Your task to perform on an android device: What's the weather going to be this weekend? Image 0: 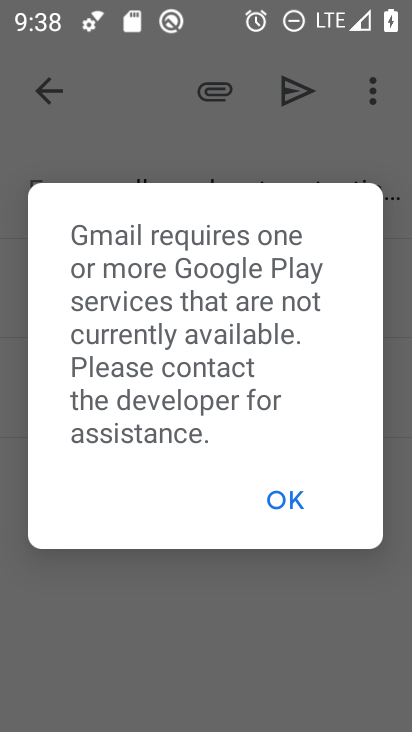
Step 0: click (294, 490)
Your task to perform on an android device: What's the weather going to be this weekend? Image 1: 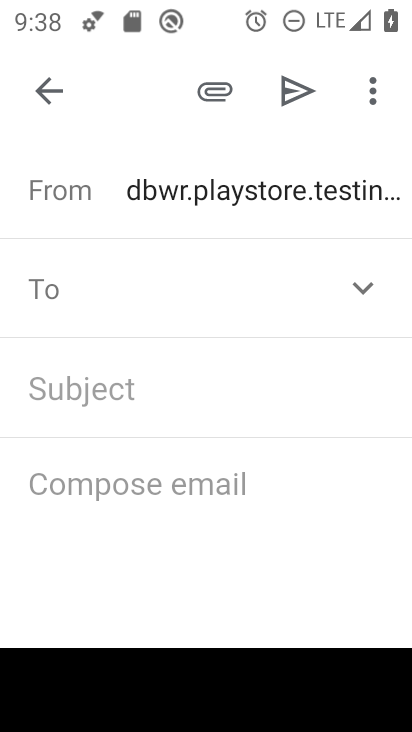
Step 1: press home button
Your task to perform on an android device: What's the weather going to be this weekend? Image 2: 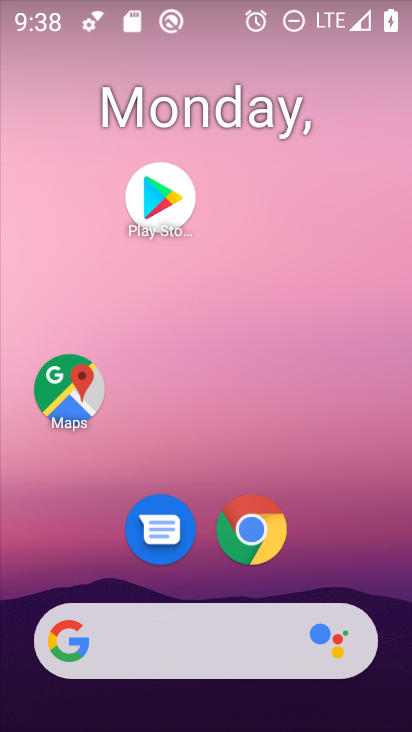
Step 2: click (179, 621)
Your task to perform on an android device: What's the weather going to be this weekend? Image 3: 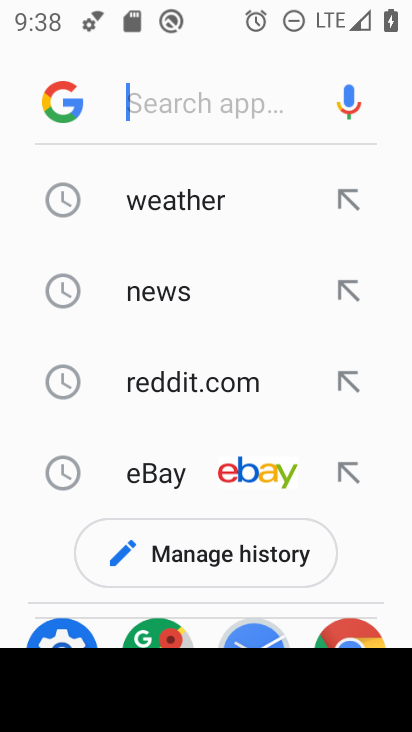
Step 3: click (183, 193)
Your task to perform on an android device: What's the weather going to be this weekend? Image 4: 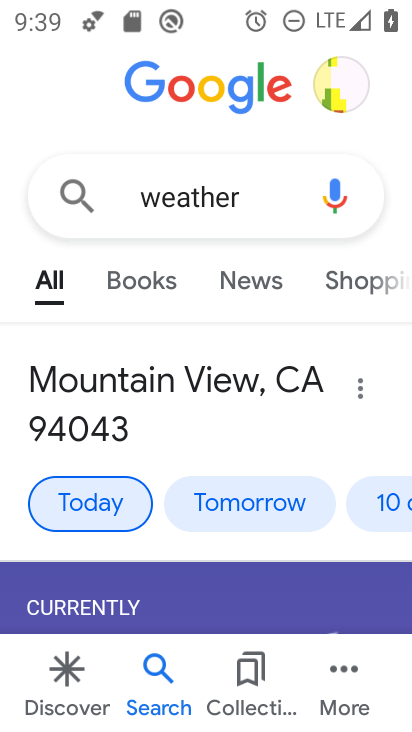
Step 4: click (370, 503)
Your task to perform on an android device: What's the weather going to be this weekend? Image 5: 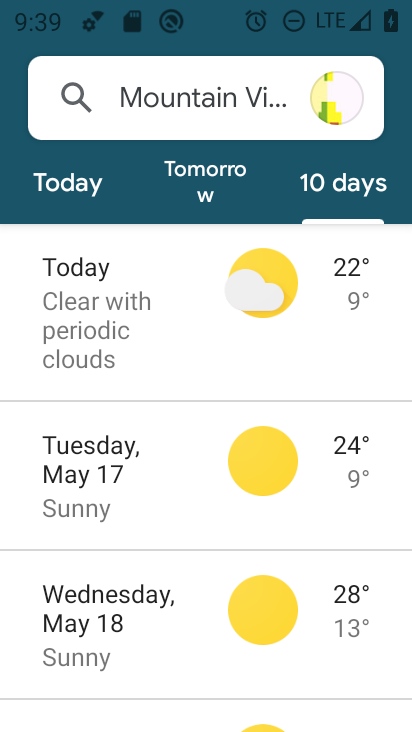
Step 5: task complete